Your task to perform on an android device: Go to battery settings Image 0: 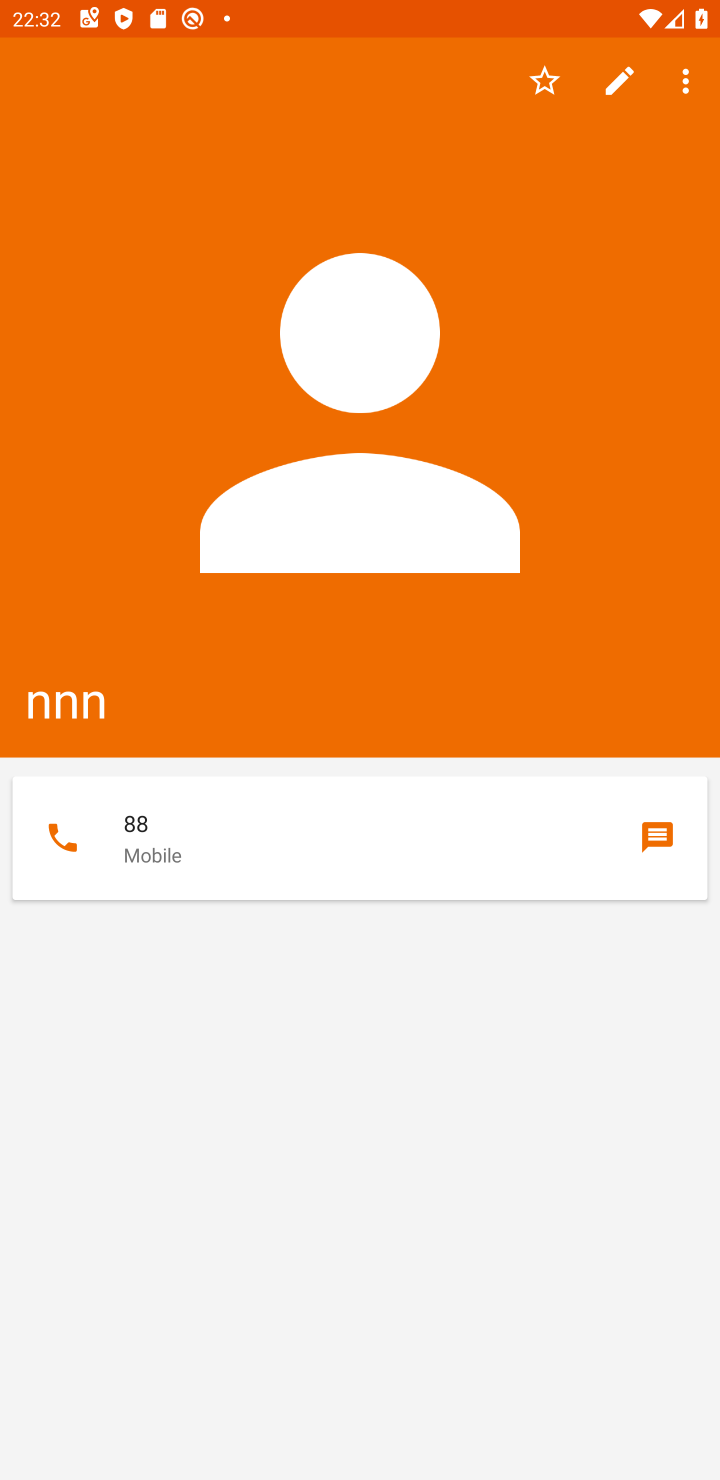
Step 0: press home button
Your task to perform on an android device: Go to battery settings Image 1: 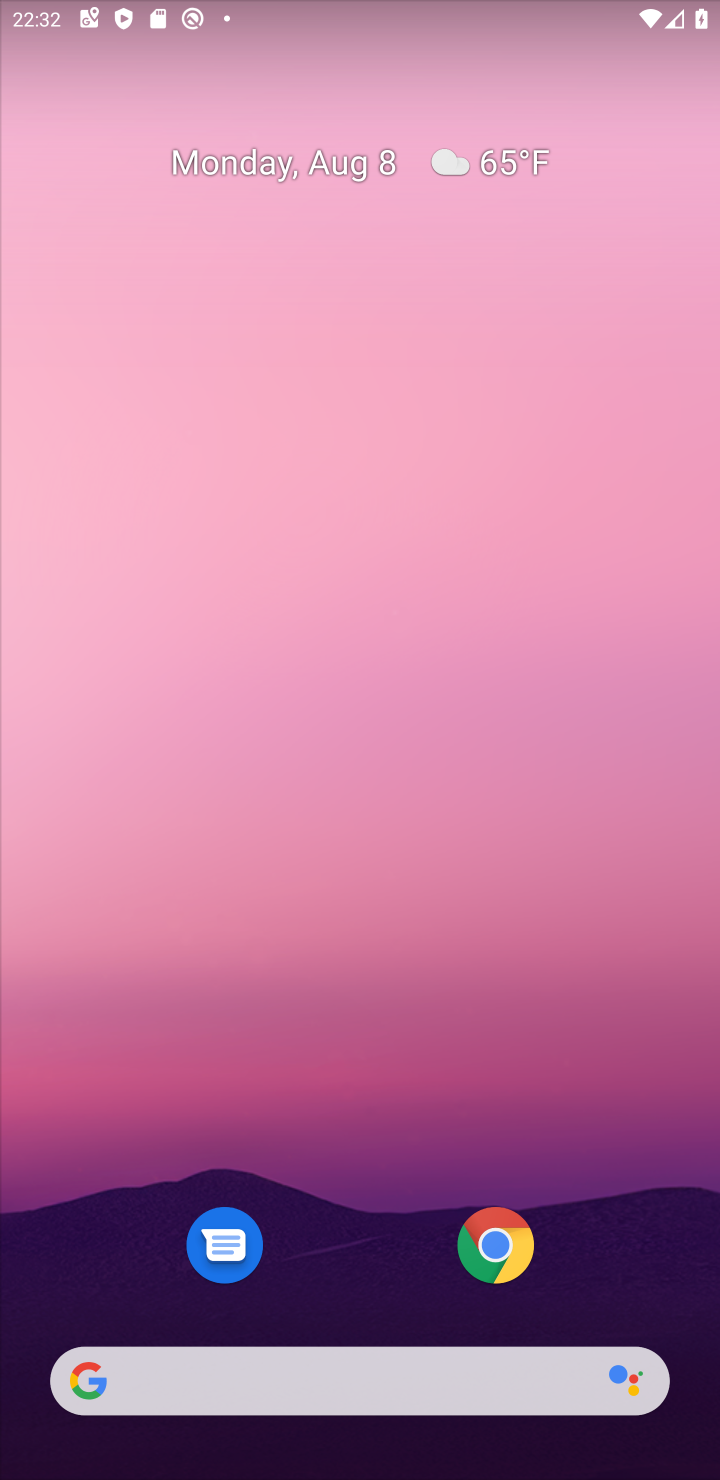
Step 1: drag from (331, 1125) to (99, 53)
Your task to perform on an android device: Go to battery settings Image 2: 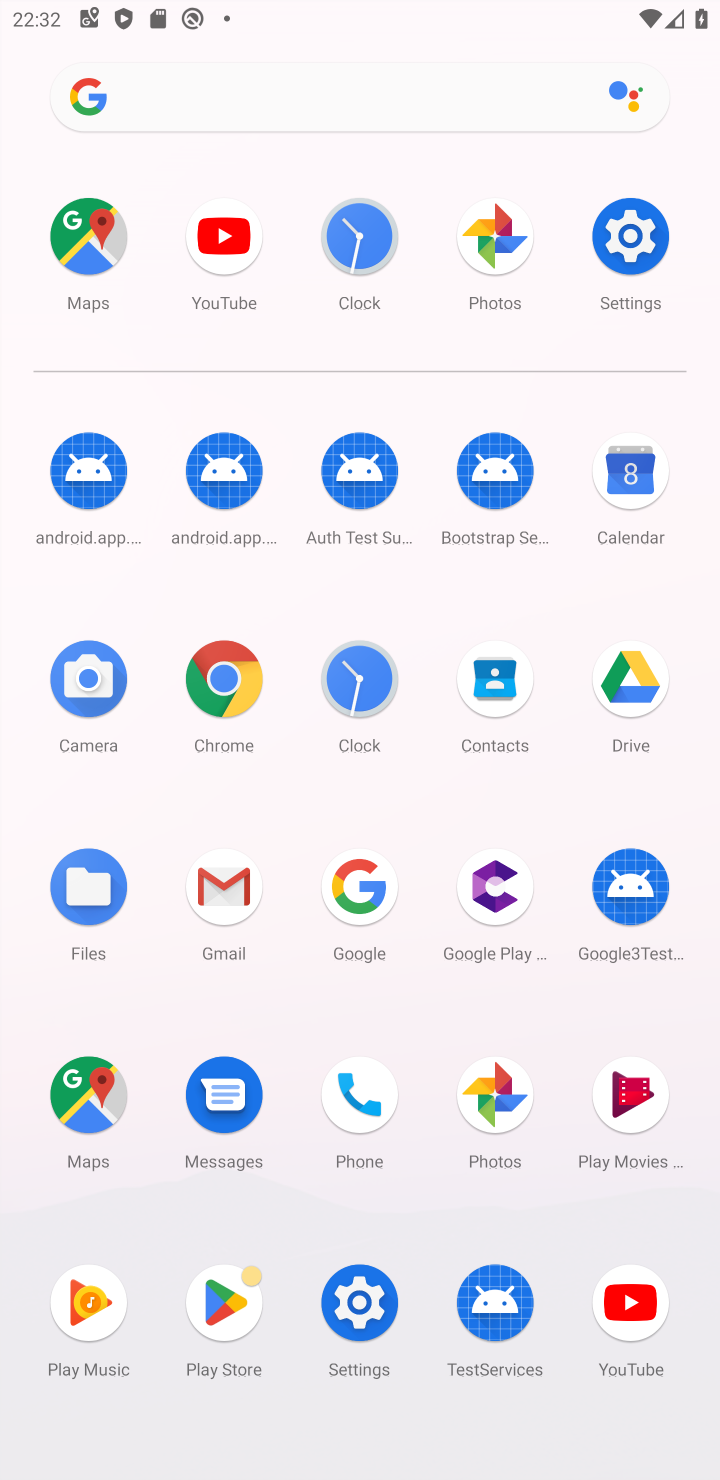
Step 2: click (630, 235)
Your task to perform on an android device: Go to battery settings Image 3: 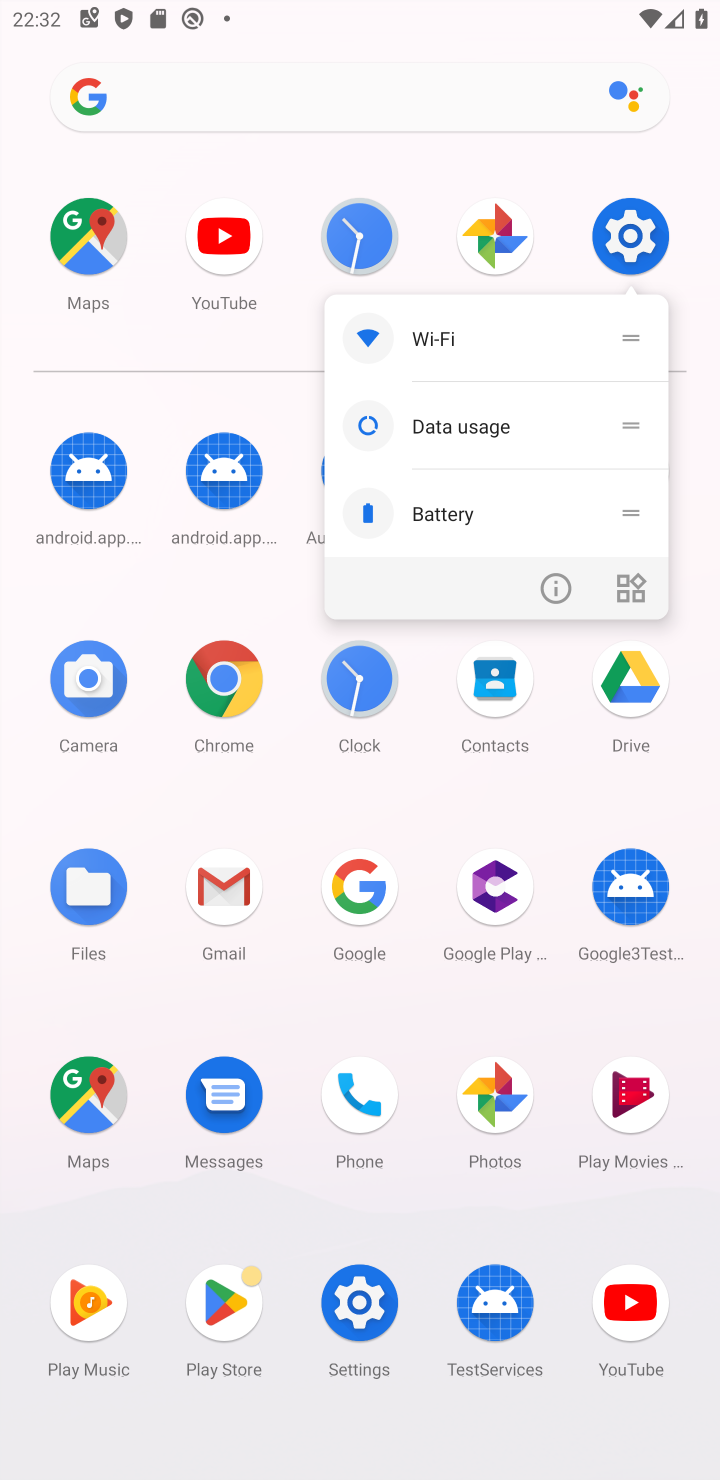
Step 3: click (639, 231)
Your task to perform on an android device: Go to battery settings Image 4: 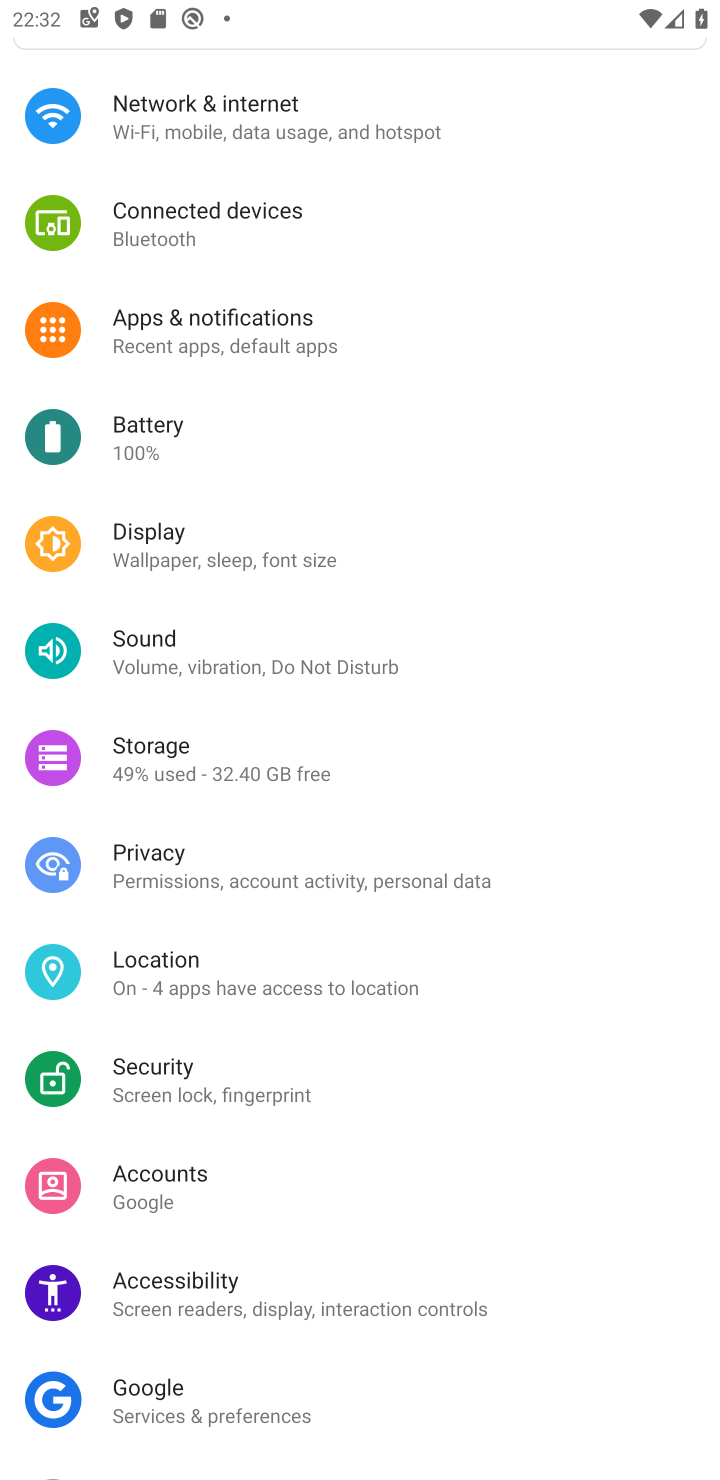
Step 4: click (160, 426)
Your task to perform on an android device: Go to battery settings Image 5: 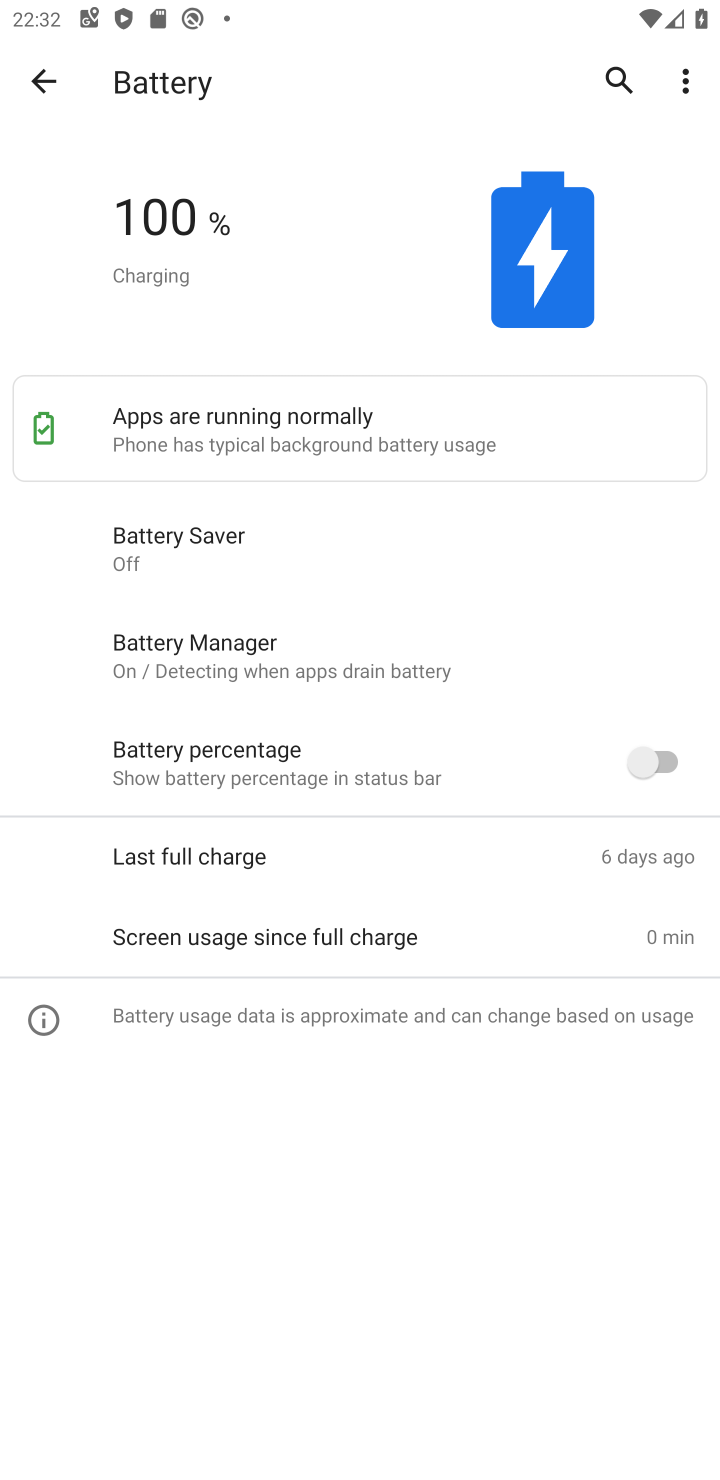
Step 5: task complete